Your task to perform on an android device: change the clock display to analog Image 0: 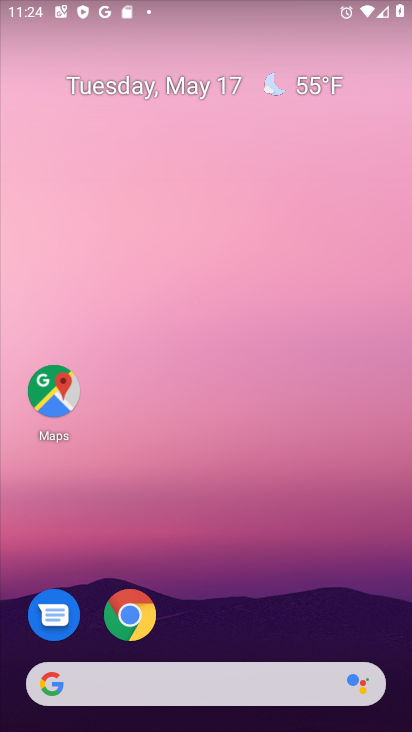
Step 0: drag from (333, 571) to (269, 66)
Your task to perform on an android device: change the clock display to analog Image 1: 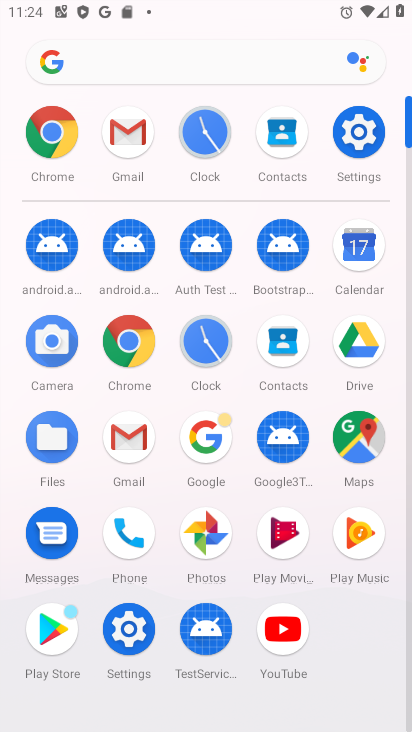
Step 1: click (211, 342)
Your task to perform on an android device: change the clock display to analog Image 2: 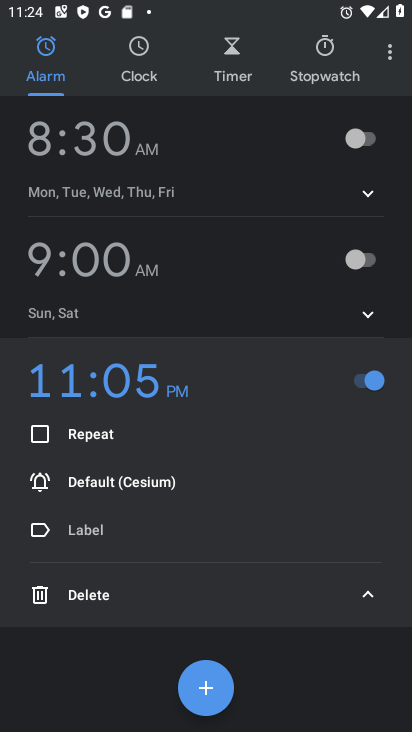
Step 2: drag from (388, 49) to (282, 105)
Your task to perform on an android device: change the clock display to analog Image 3: 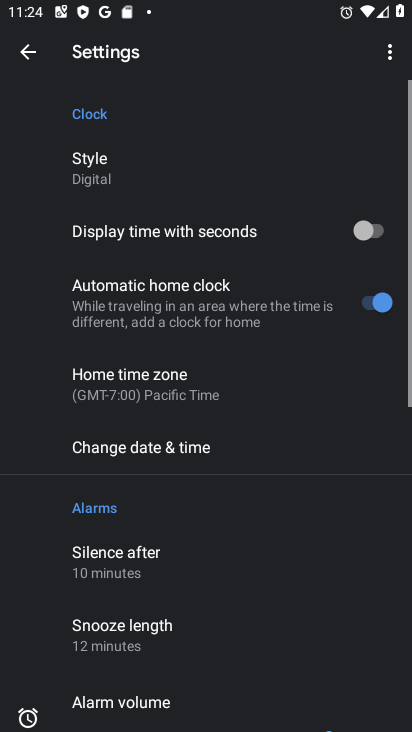
Step 3: click (99, 162)
Your task to perform on an android device: change the clock display to analog Image 4: 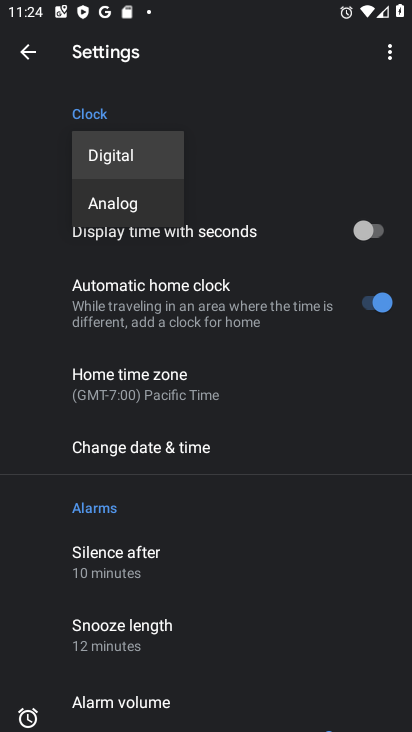
Step 4: click (151, 195)
Your task to perform on an android device: change the clock display to analog Image 5: 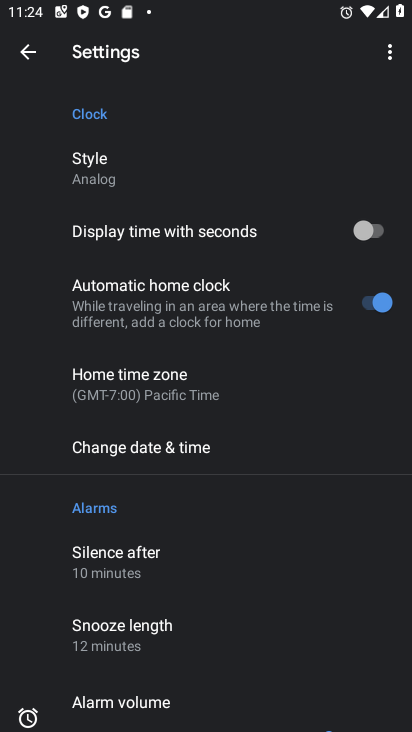
Step 5: task complete